Your task to perform on an android device: show emergency info Image 0: 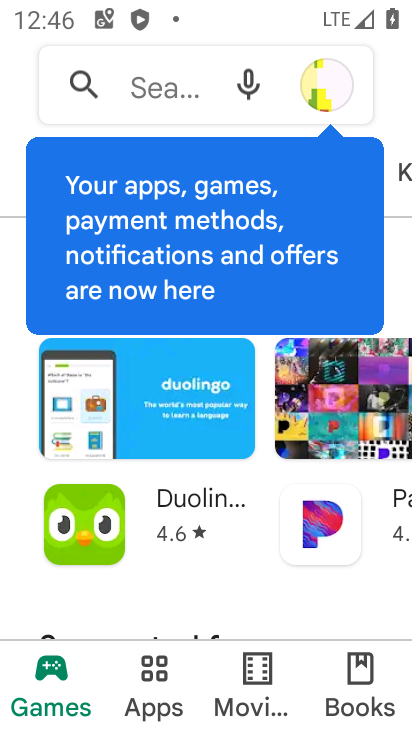
Step 0: press home button
Your task to perform on an android device: show emergency info Image 1: 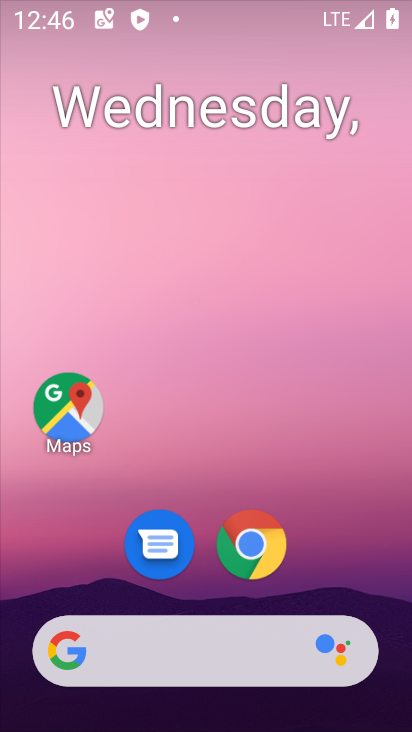
Step 1: drag from (400, 647) to (299, 17)
Your task to perform on an android device: show emergency info Image 2: 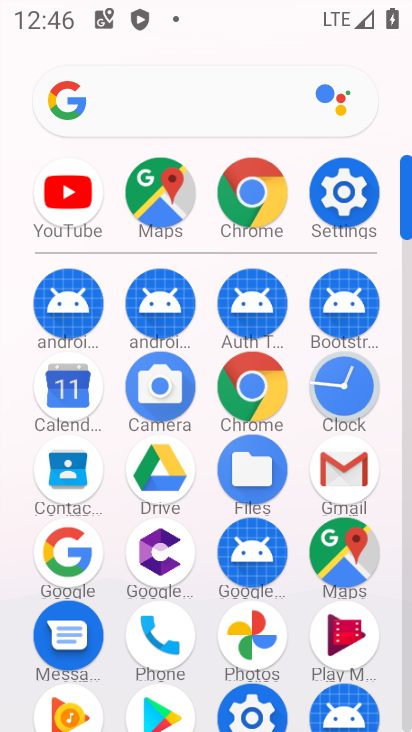
Step 2: click (339, 196)
Your task to perform on an android device: show emergency info Image 3: 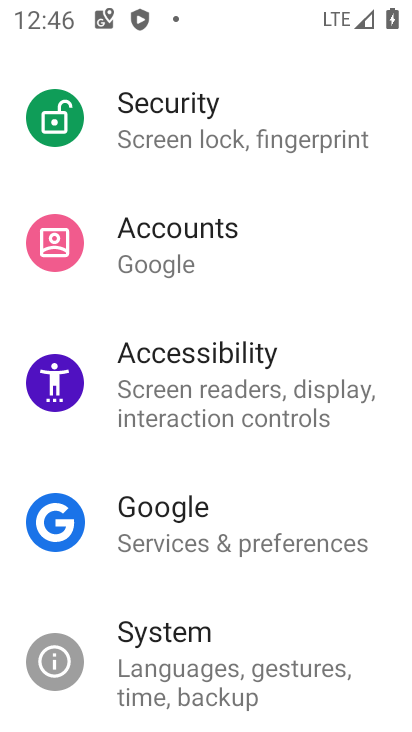
Step 3: drag from (238, 634) to (276, 62)
Your task to perform on an android device: show emergency info Image 4: 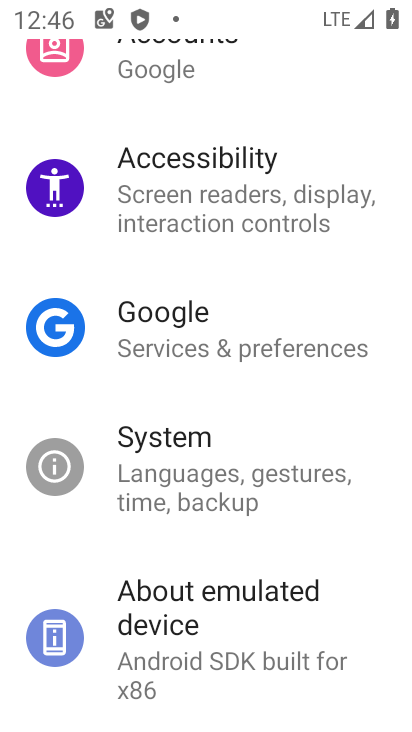
Step 4: click (225, 599)
Your task to perform on an android device: show emergency info Image 5: 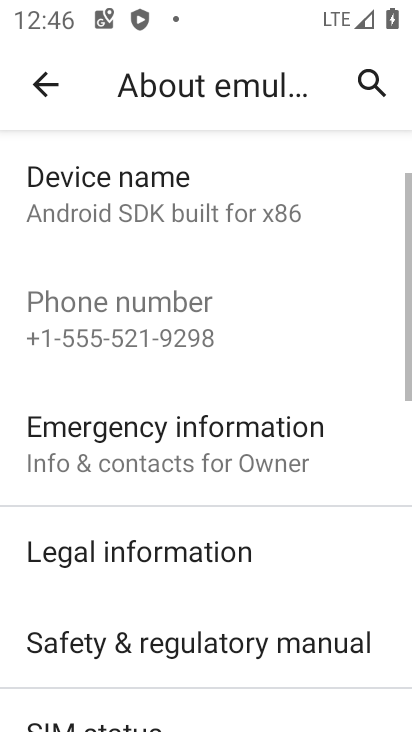
Step 5: click (224, 455)
Your task to perform on an android device: show emergency info Image 6: 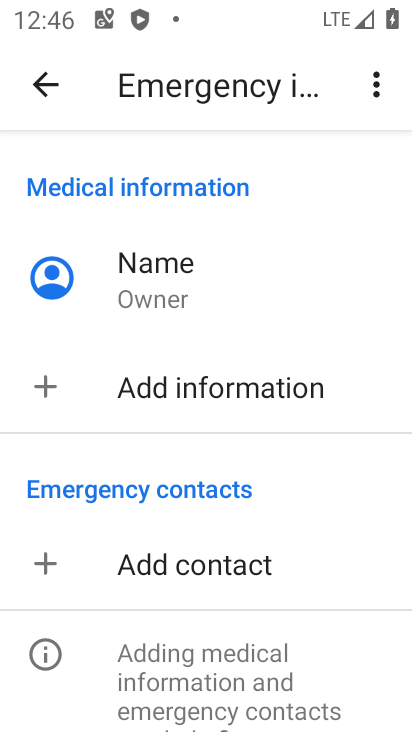
Step 6: task complete